Your task to perform on an android device: Go to settings Image 0: 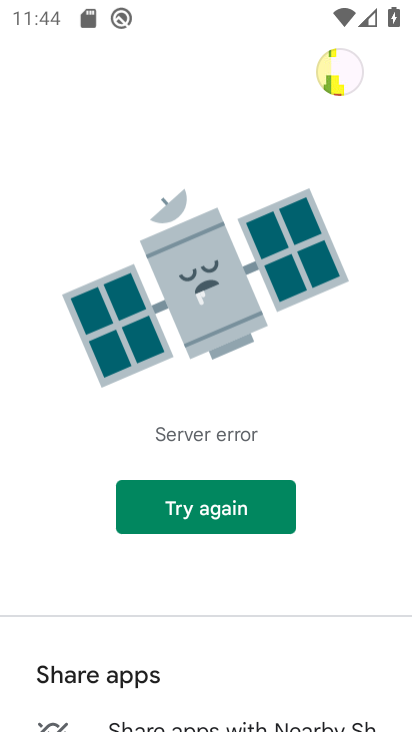
Step 0: press home button
Your task to perform on an android device: Go to settings Image 1: 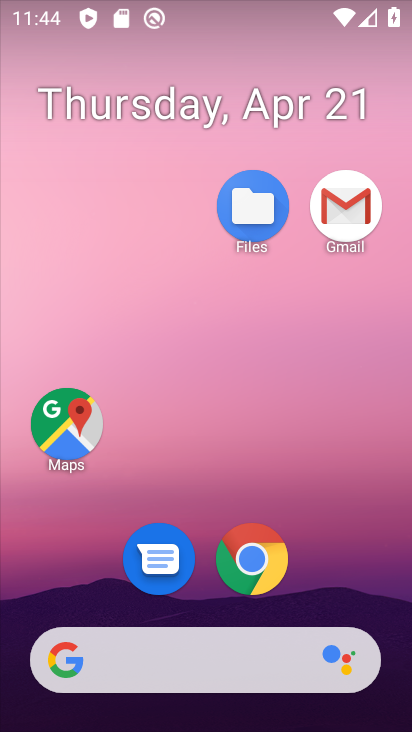
Step 1: drag from (208, 619) to (295, 4)
Your task to perform on an android device: Go to settings Image 2: 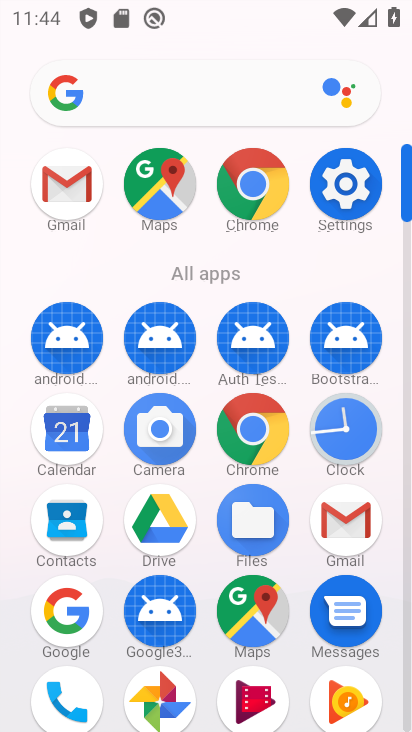
Step 2: click (344, 193)
Your task to perform on an android device: Go to settings Image 3: 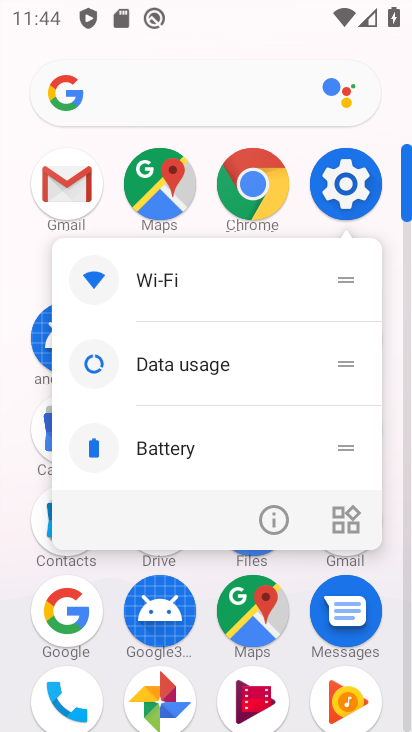
Step 3: click (344, 193)
Your task to perform on an android device: Go to settings Image 4: 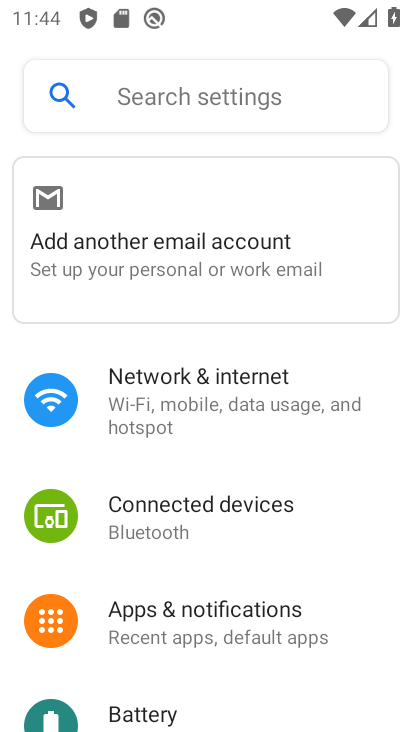
Step 4: task complete